Your task to perform on an android device: Open Google Chrome Image 0: 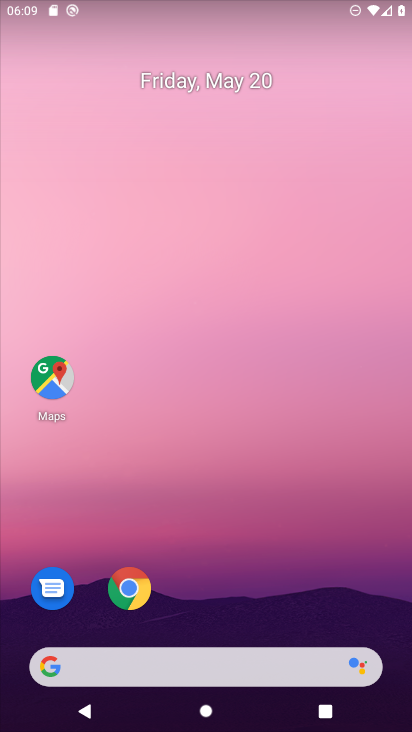
Step 0: click (134, 593)
Your task to perform on an android device: Open Google Chrome Image 1: 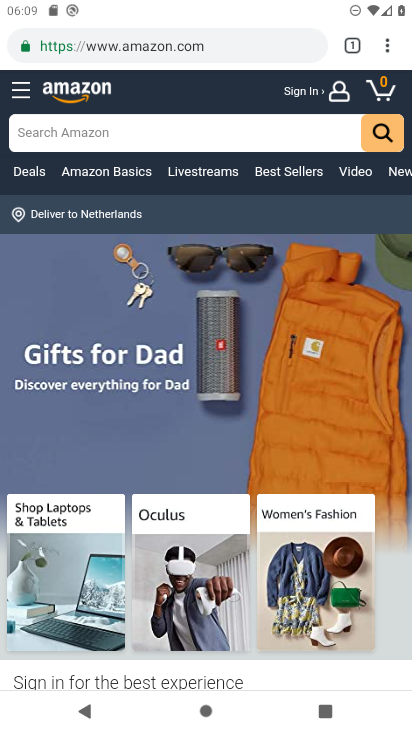
Step 1: task complete